Your task to perform on an android device: Open Reddit.com Image 0: 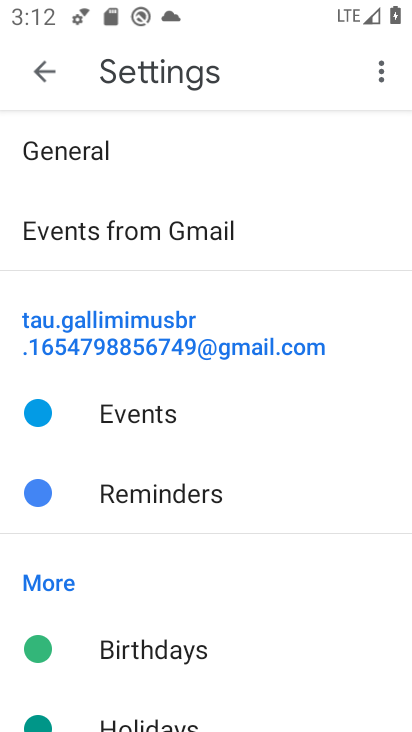
Step 0: press home button
Your task to perform on an android device: Open Reddit.com Image 1: 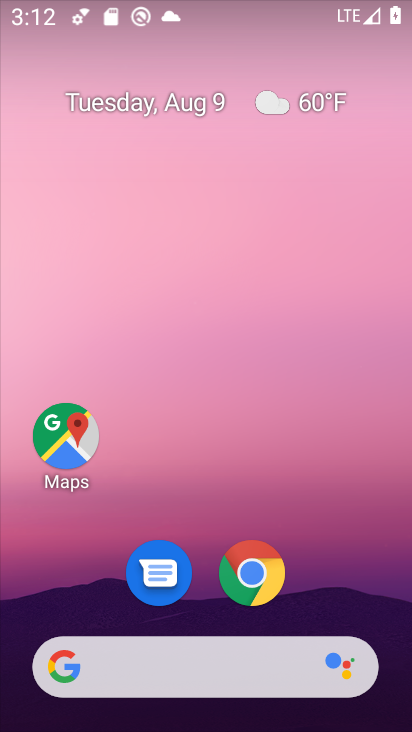
Step 1: drag from (332, 610) to (26, 214)
Your task to perform on an android device: Open Reddit.com Image 2: 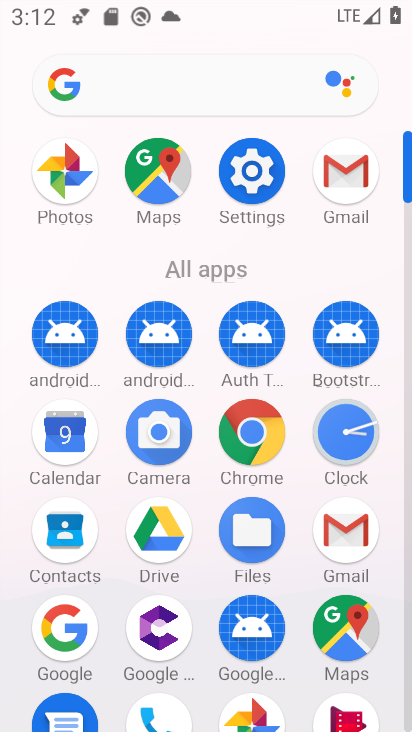
Step 2: click (258, 428)
Your task to perform on an android device: Open Reddit.com Image 3: 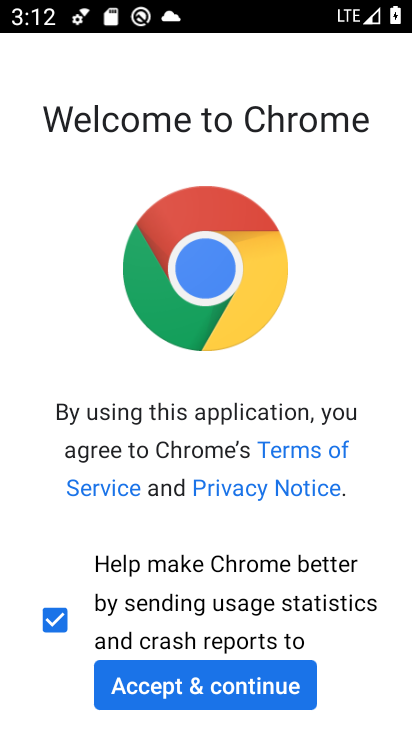
Step 3: click (289, 692)
Your task to perform on an android device: Open Reddit.com Image 4: 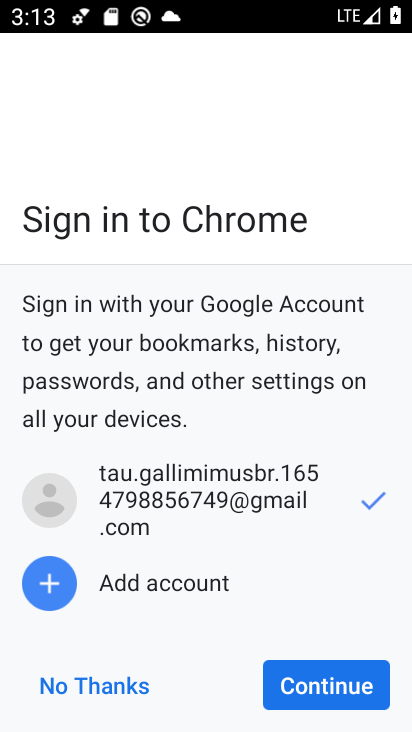
Step 4: click (316, 696)
Your task to perform on an android device: Open Reddit.com Image 5: 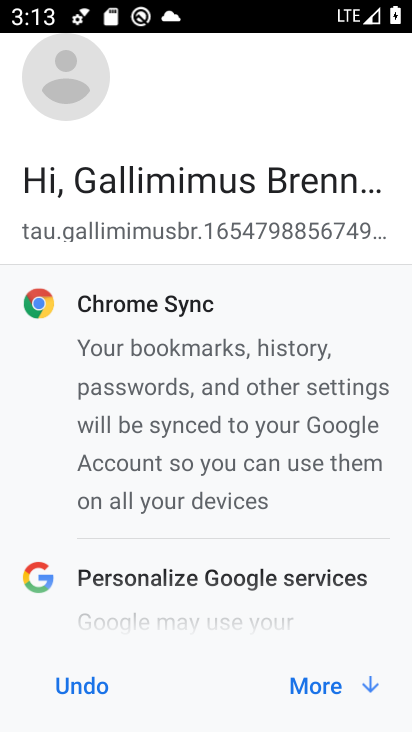
Step 5: click (370, 705)
Your task to perform on an android device: Open Reddit.com Image 6: 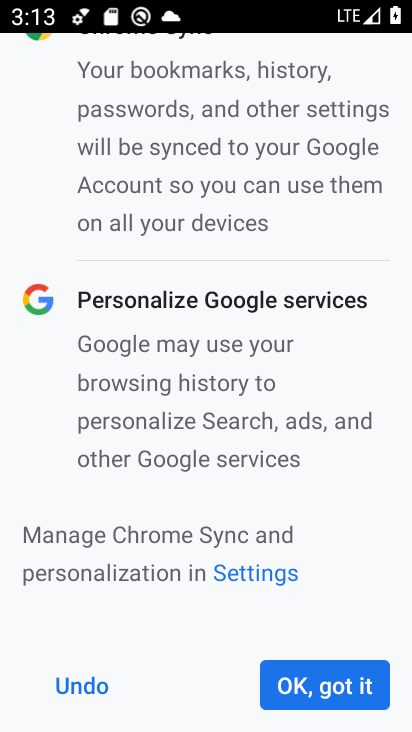
Step 6: click (370, 705)
Your task to perform on an android device: Open Reddit.com Image 7: 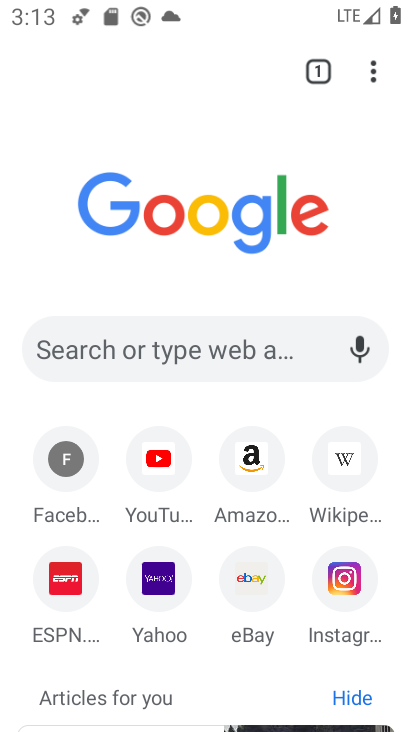
Step 7: click (182, 351)
Your task to perform on an android device: Open Reddit.com Image 8: 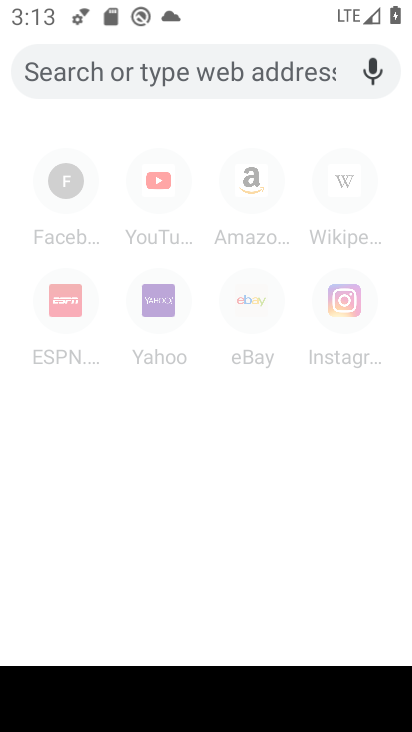
Step 8: type "reddit.com"
Your task to perform on an android device: Open Reddit.com Image 9: 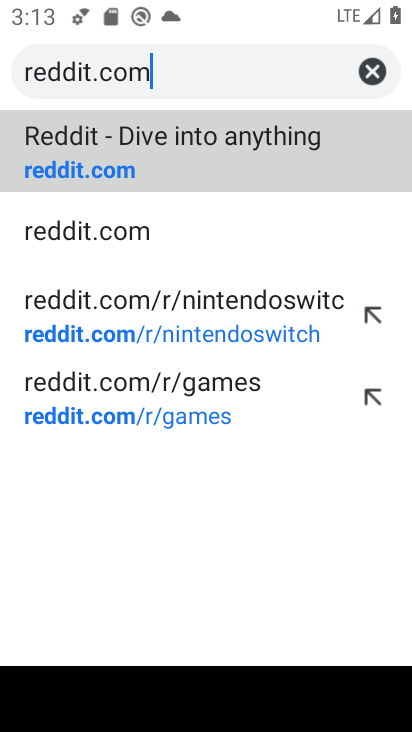
Step 9: click (107, 164)
Your task to perform on an android device: Open Reddit.com Image 10: 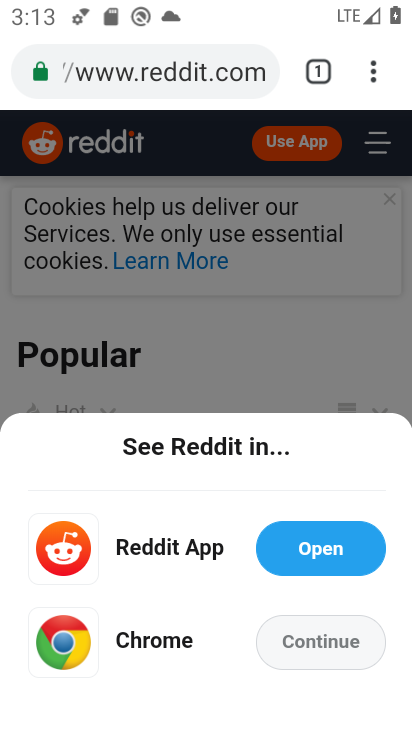
Step 10: task complete